Your task to perform on an android device: Go to Reddit.com Image 0: 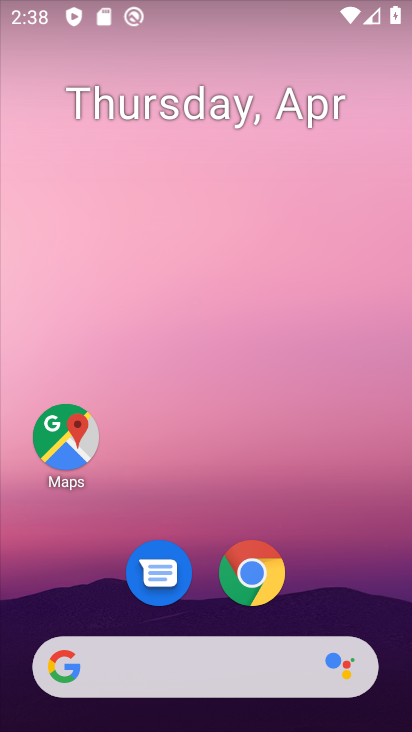
Step 0: drag from (343, 594) to (196, 38)
Your task to perform on an android device: Go to Reddit.com Image 1: 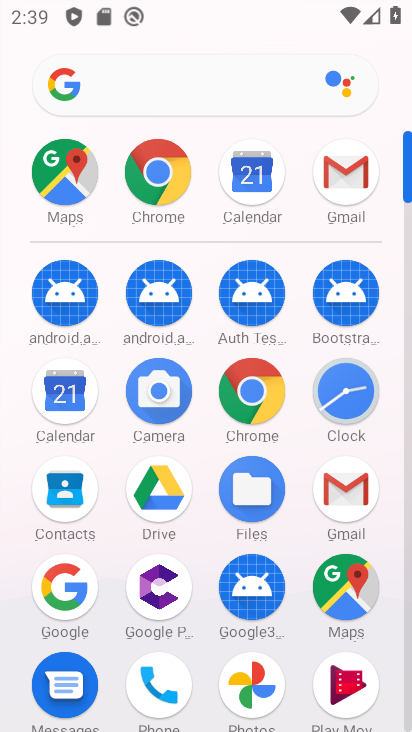
Step 1: click (246, 393)
Your task to perform on an android device: Go to Reddit.com Image 2: 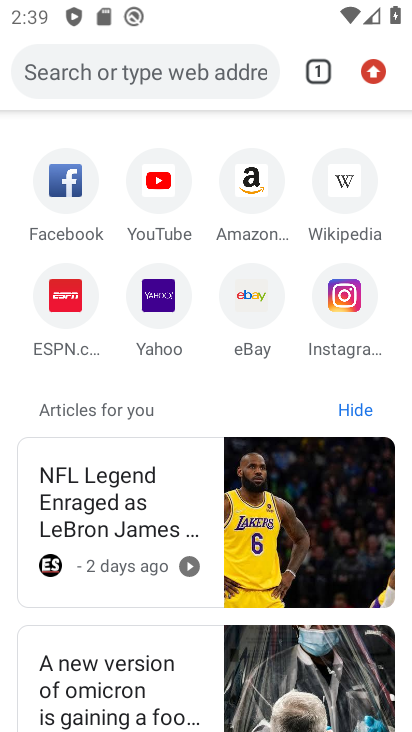
Step 2: click (164, 67)
Your task to perform on an android device: Go to Reddit.com Image 3: 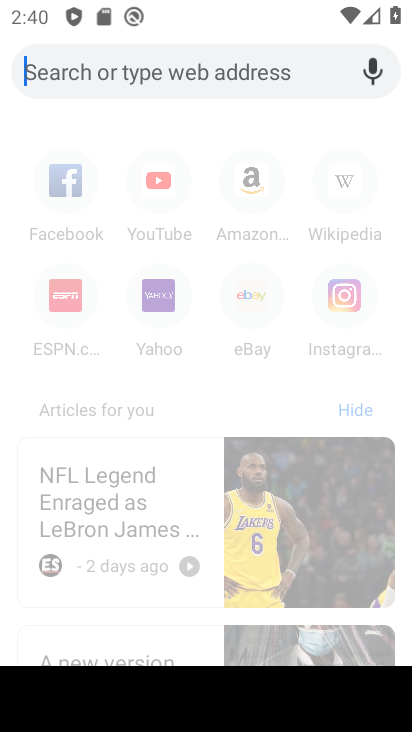
Step 3: type "reddit.com"
Your task to perform on an android device: Go to Reddit.com Image 4: 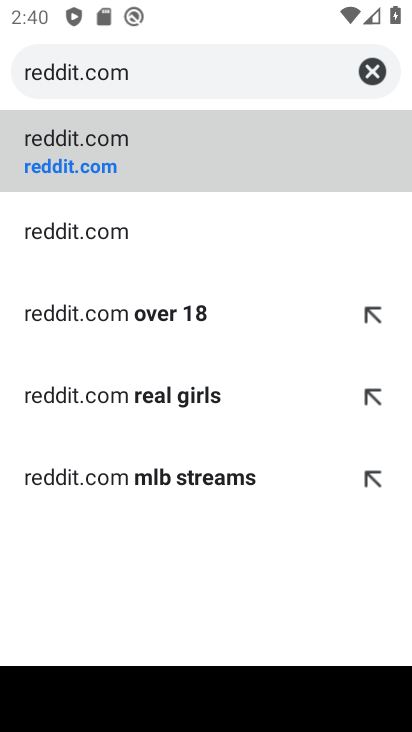
Step 4: click (152, 142)
Your task to perform on an android device: Go to Reddit.com Image 5: 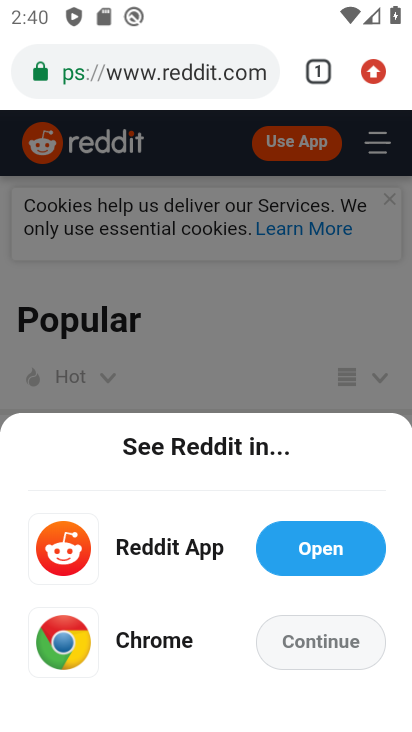
Step 5: task complete